Your task to perform on an android device: toggle sleep mode Image 0: 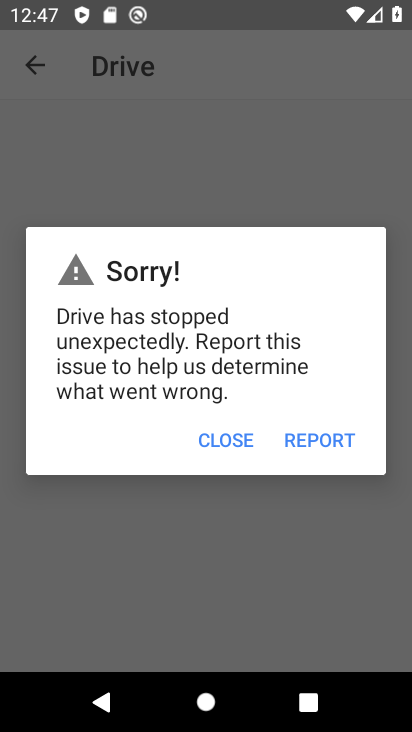
Step 0: press home button
Your task to perform on an android device: toggle sleep mode Image 1: 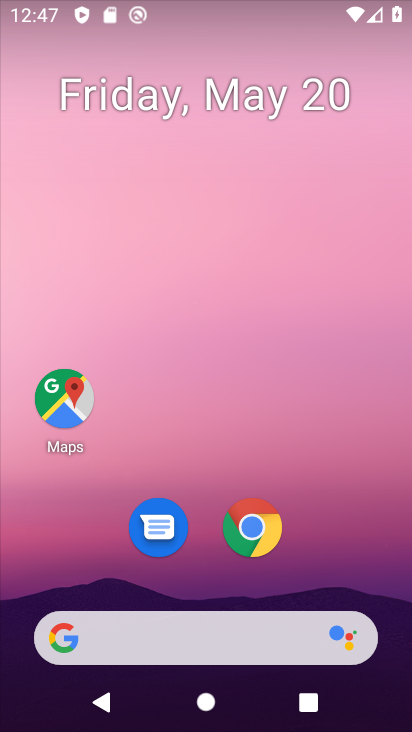
Step 1: drag from (328, 540) to (254, 35)
Your task to perform on an android device: toggle sleep mode Image 2: 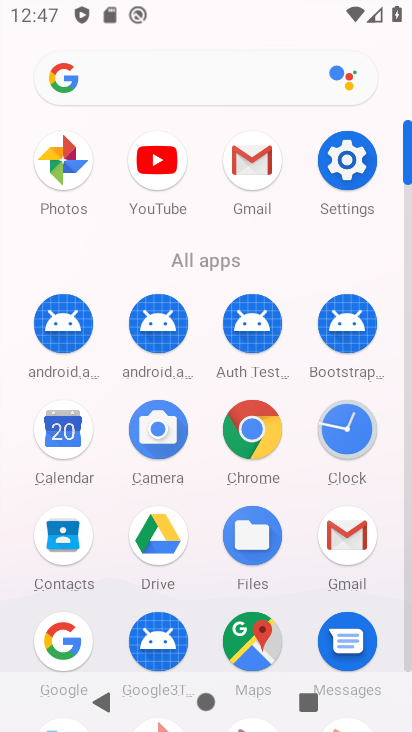
Step 2: click (337, 143)
Your task to perform on an android device: toggle sleep mode Image 3: 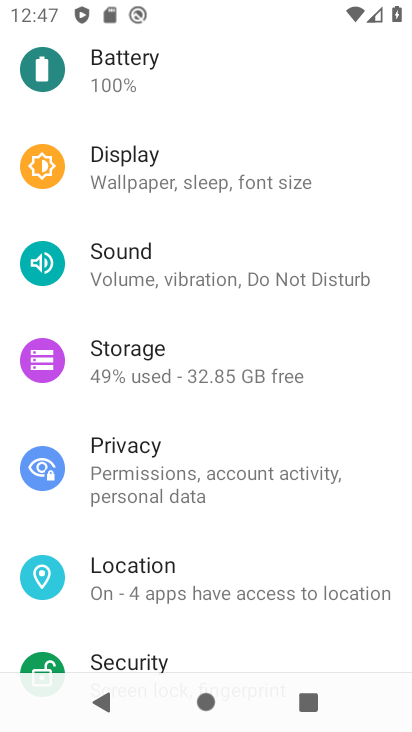
Step 3: click (222, 184)
Your task to perform on an android device: toggle sleep mode Image 4: 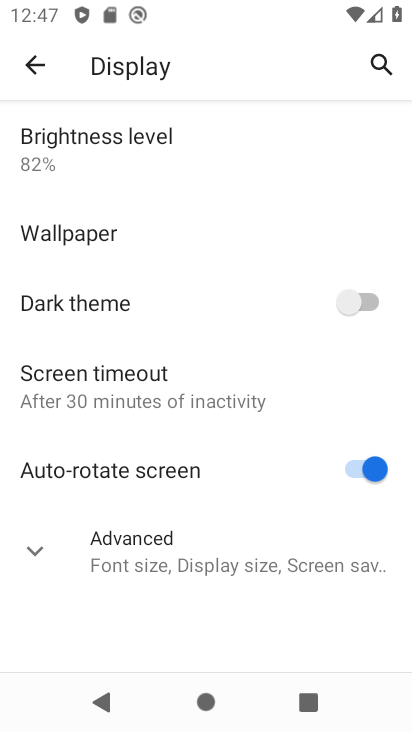
Step 4: click (36, 547)
Your task to perform on an android device: toggle sleep mode Image 5: 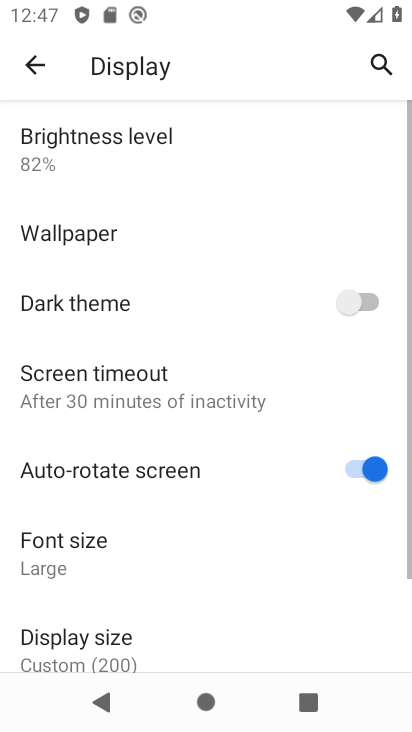
Step 5: task complete